Your task to perform on an android device: Open privacy settings Image 0: 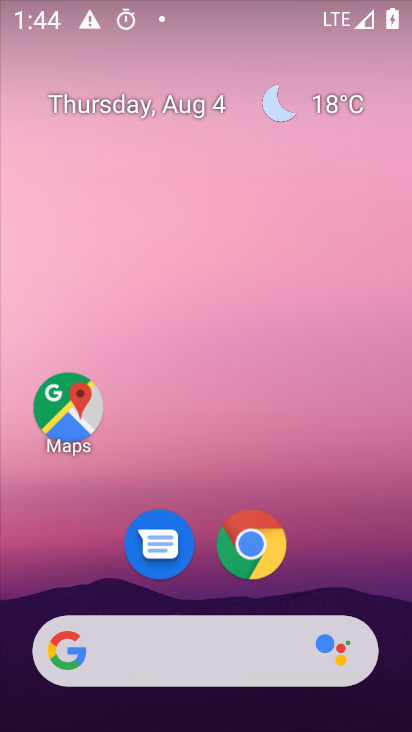
Step 0: drag from (386, 672) to (309, 25)
Your task to perform on an android device: Open privacy settings Image 1: 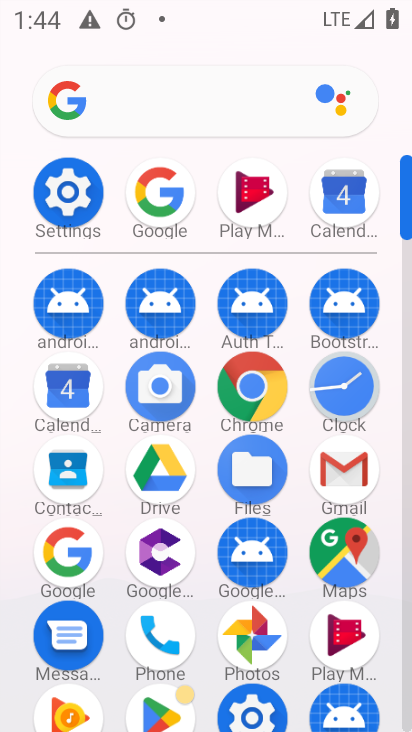
Step 1: click (67, 191)
Your task to perform on an android device: Open privacy settings Image 2: 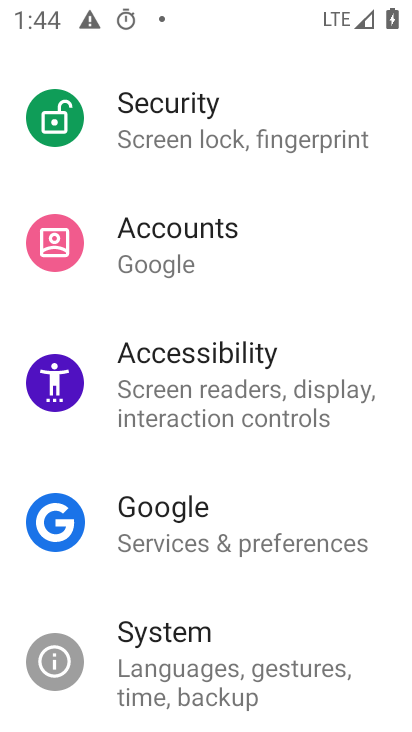
Step 2: drag from (223, 631) to (207, 226)
Your task to perform on an android device: Open privacy settings Image 3: 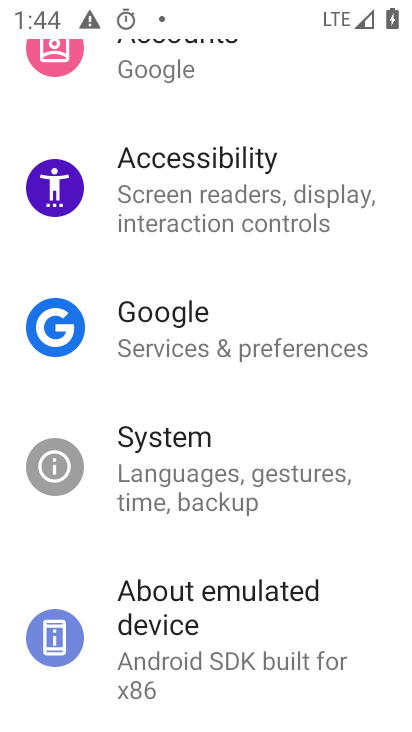
Step 3: drag from (207, 641) to (205, 297)
Your task to perform on an android device: Open privacy settings Image 4: 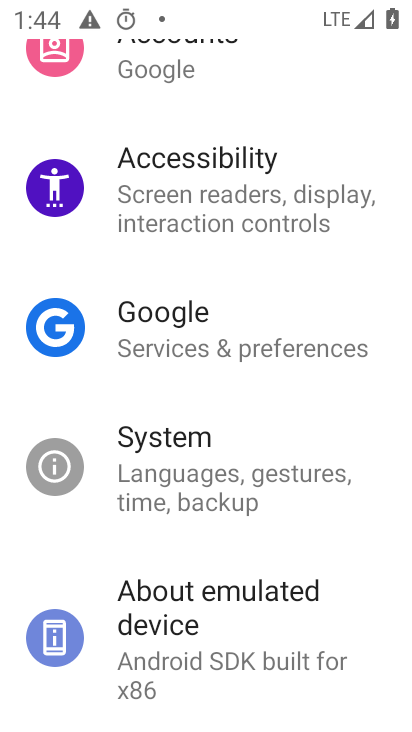
Step 4: drag from (239, 147) to (283, 630)
Your task to perform on an android device: Open privacy settings Image 5: 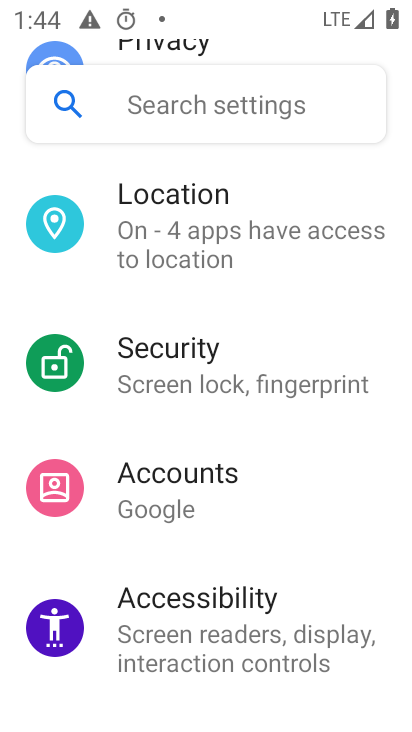
Step 5: drag from (255, 256) to (278, 612)
Your task to perform on an android device: Open privacy settings Image 6: 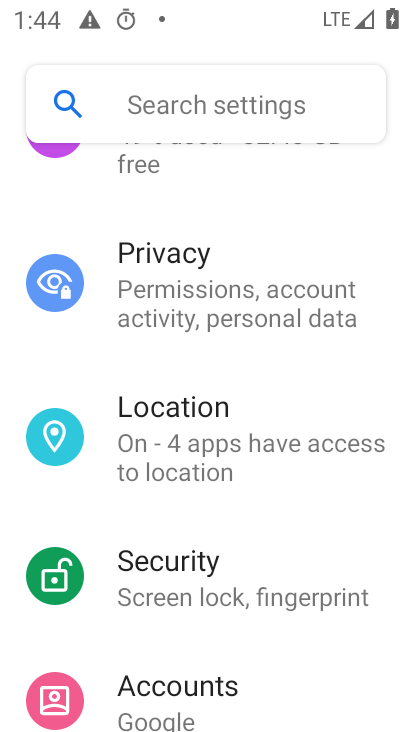
Step 6: click (154, 272)
Your task to perform on an android device: Open privacy settings Image 7: 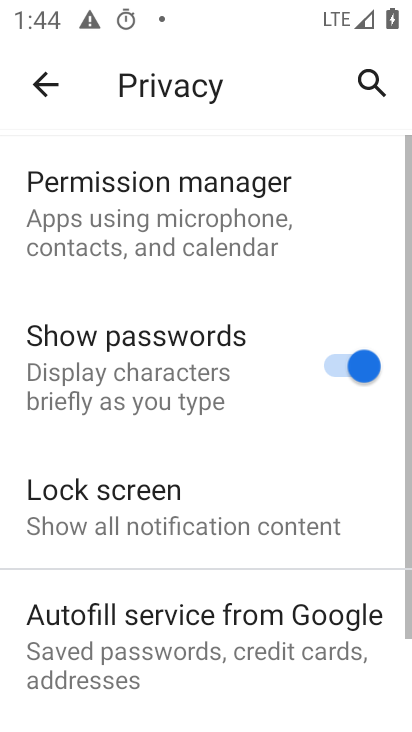
Step 7: task complete